Your task to perform on an android device: delete location history Image 0: 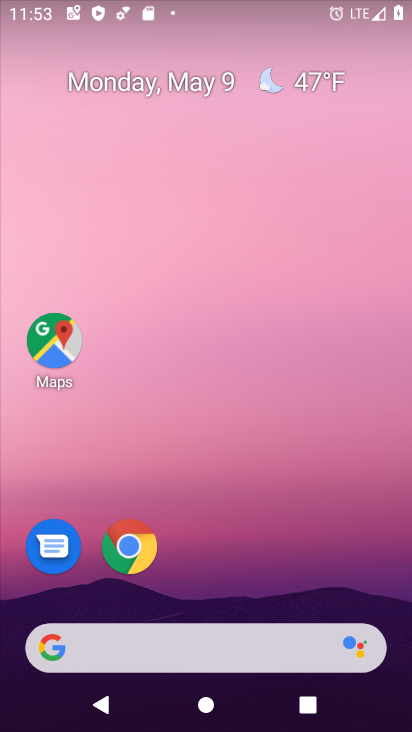
Step 0: click (54, 343)
Your task to perform on an android device: delete location history Image 1: 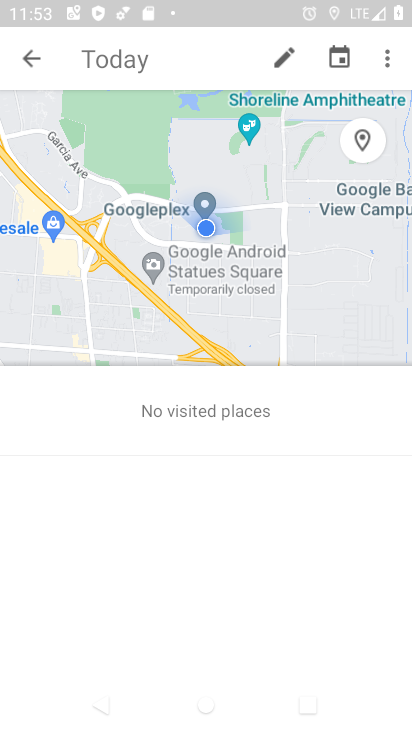
Step 1: click (390, 62)
Your task to perform on an android device: delete location history Image 2: 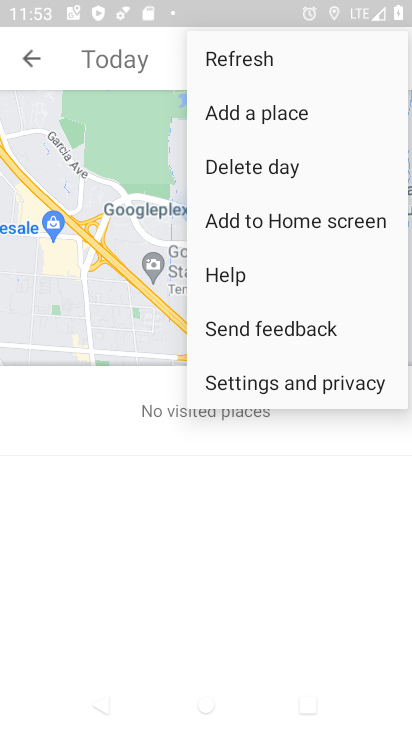
Step 2: click (247, 390)
Your task to perform on an android device: delete location history Image 3: 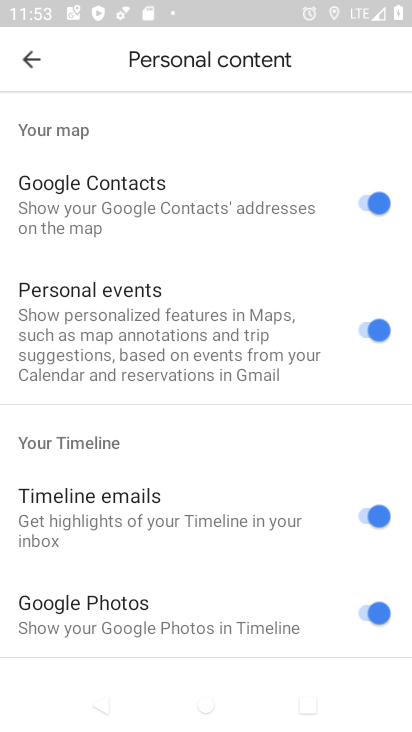
Step 3: drag from (123, 487) to (113, 184)
Your task to perform on an android device: delete location history Image 4: 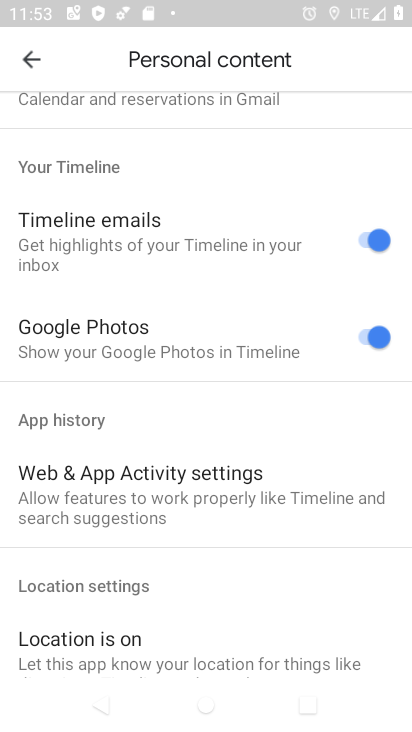
Step 4: drag from (99, 500) to (127, 136)
Your task to perform on an android device: delete location history Image 5: 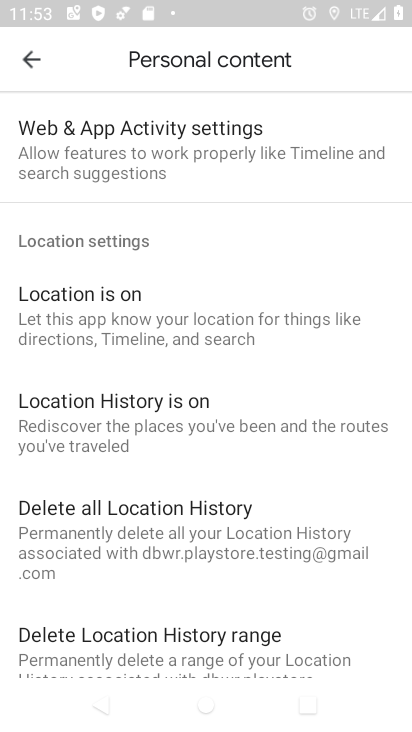
Step 5: click (107, 529)
Your task to perform on an android device: delete location history Image 6: 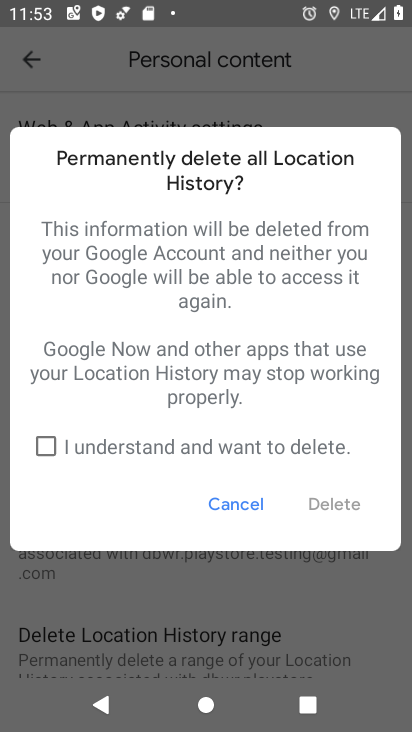
Step 6: click (50, 444)
Your task to perform on an android device: delete location history Image 7: 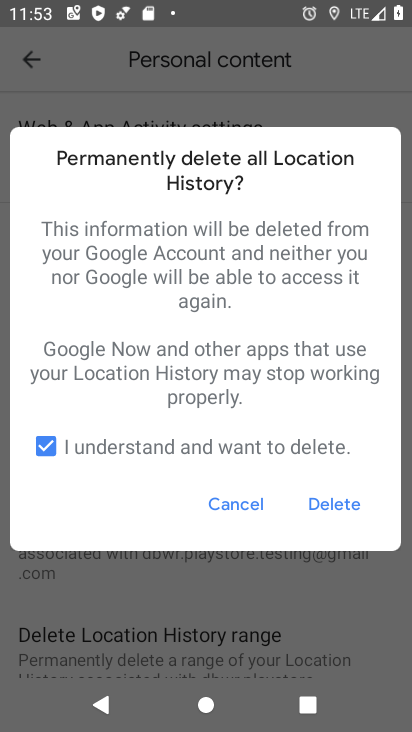
Step 7: click (327, 511)
Your task to perform on an android device: delete location history Image 8: 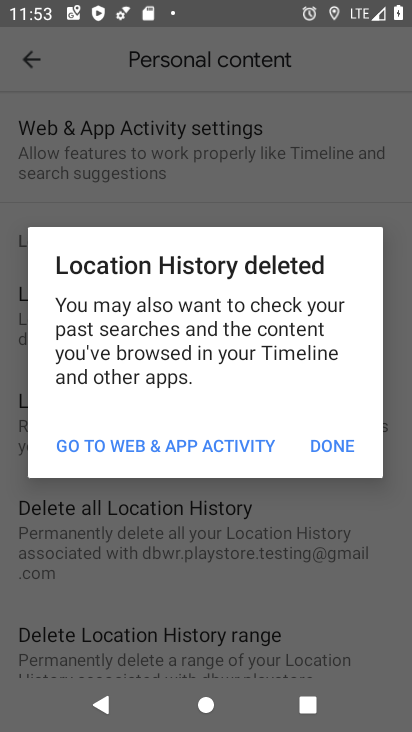
Step 8: click (330, 448)
Your task to perform on an android device: delete location history Image 9: 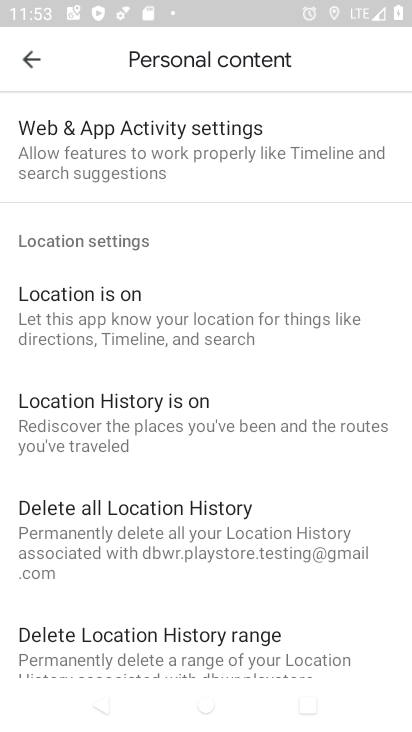
Step 9: task complete